Your task to perform on an android device: delete a single message in the gmail app Image 0: 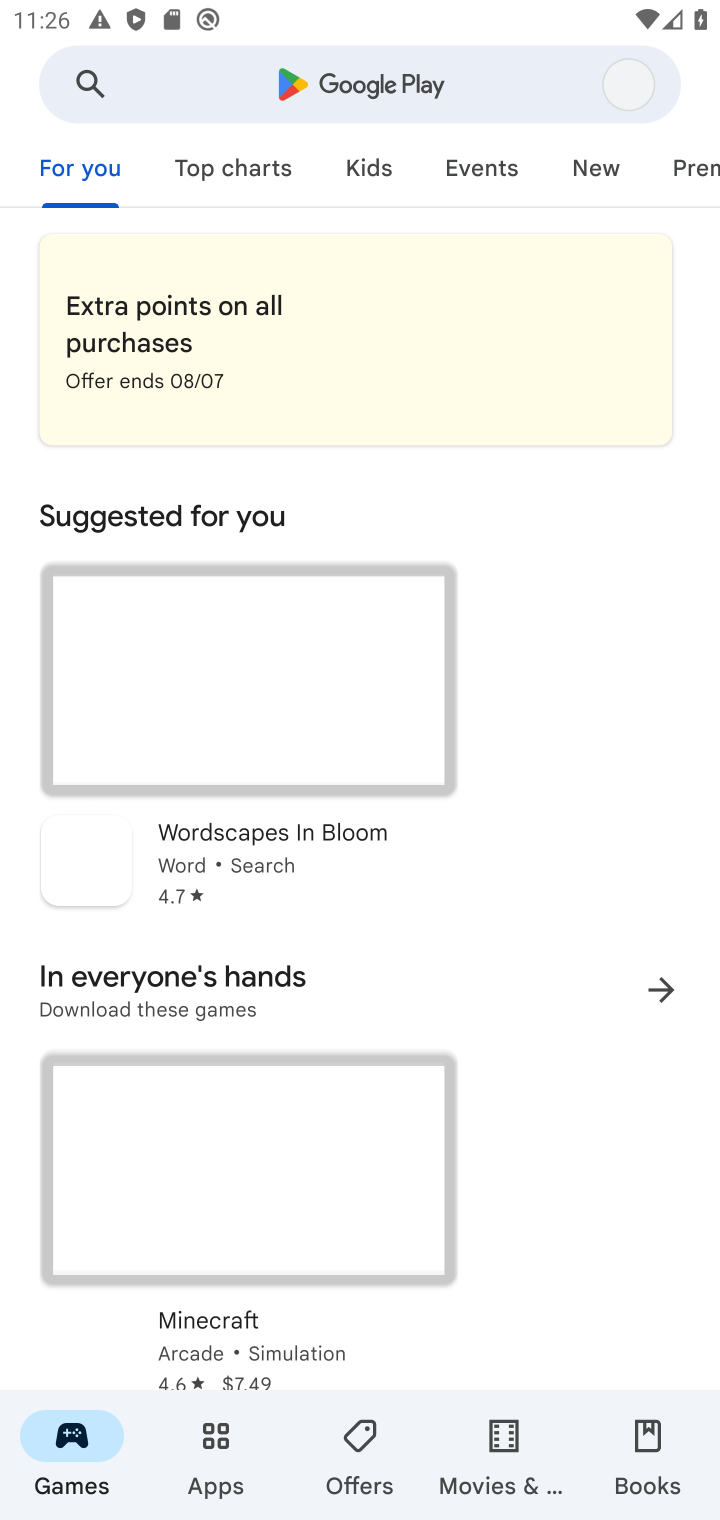
Step 0: press home button
Your task to perform on an android device: delete a single message in the gmail app Image 1: 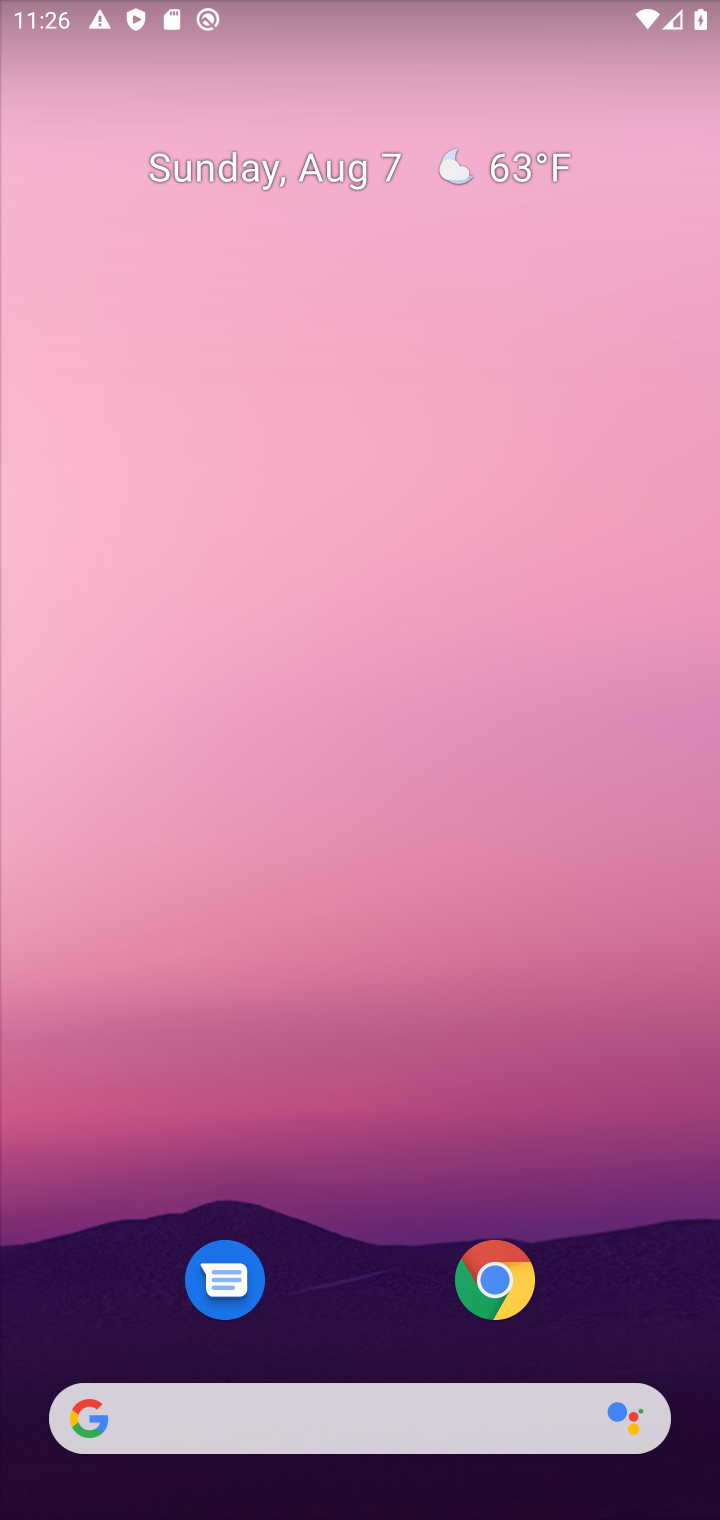
Step 1: drag from (326, 1331) to (301, 320)
Your task to perform on an android device: delete a single message in the gmail app Image 2: 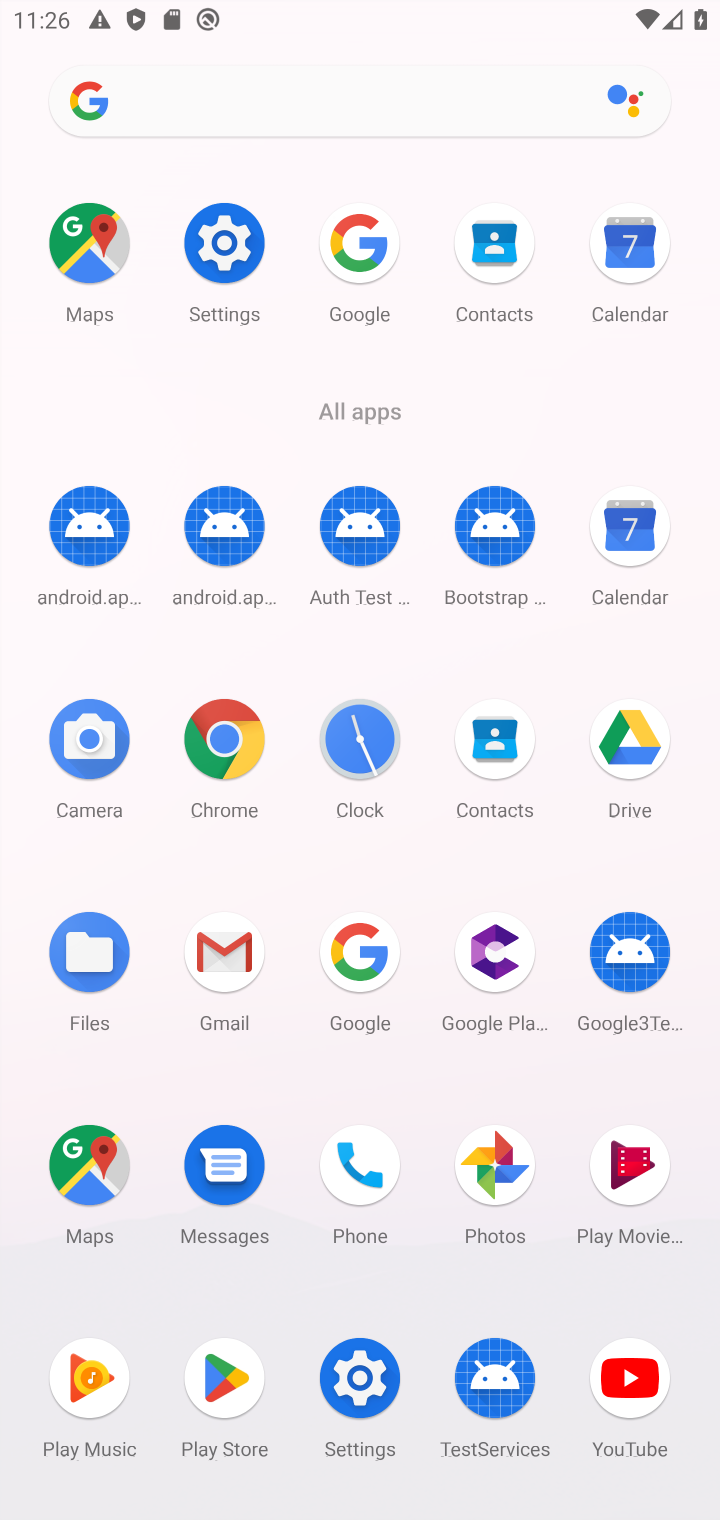
Step 2: click (229, 963)
Your task to perform on an android device: delete a single message in the gmail app Image 3: 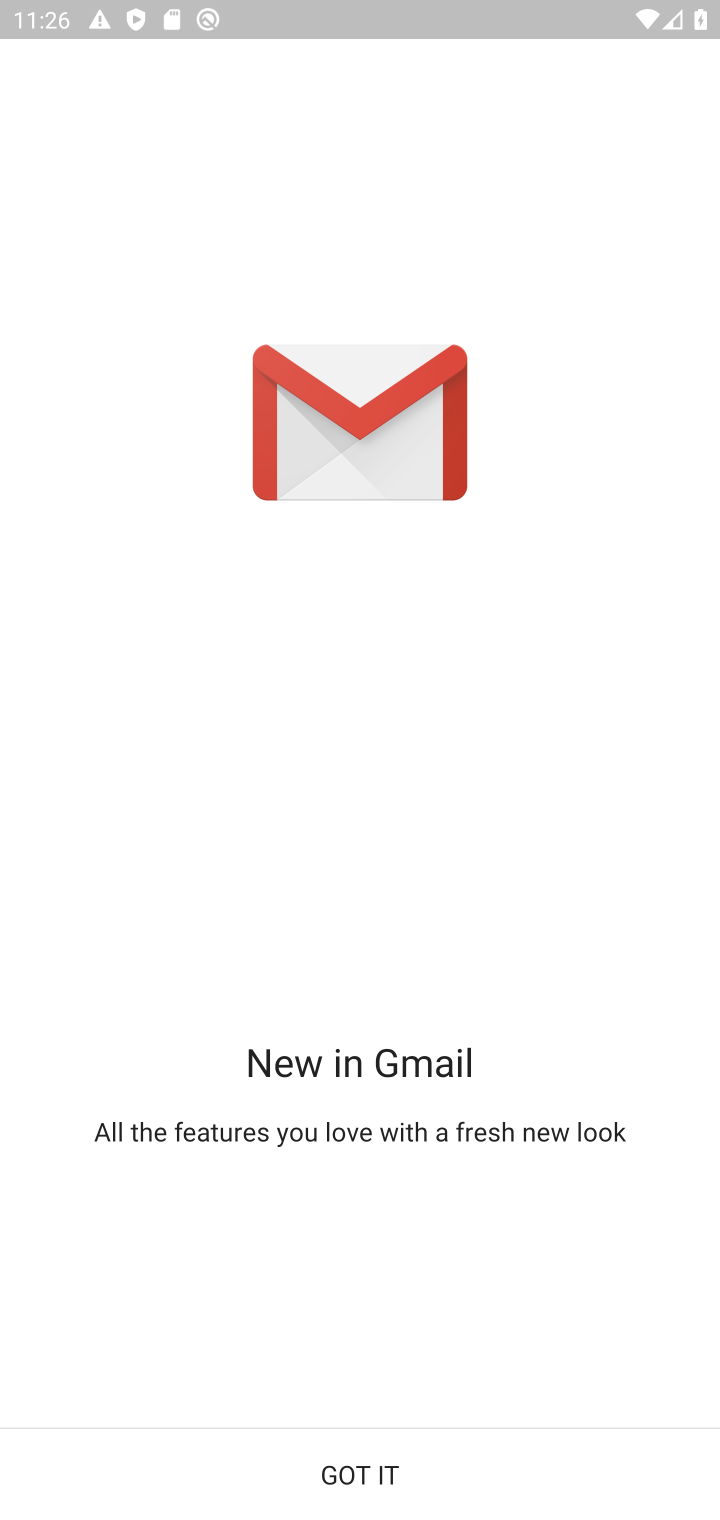
Step 3: click (340, 1468)
Your task to perform on an android device: delete a single message in the gmail app Image 4: 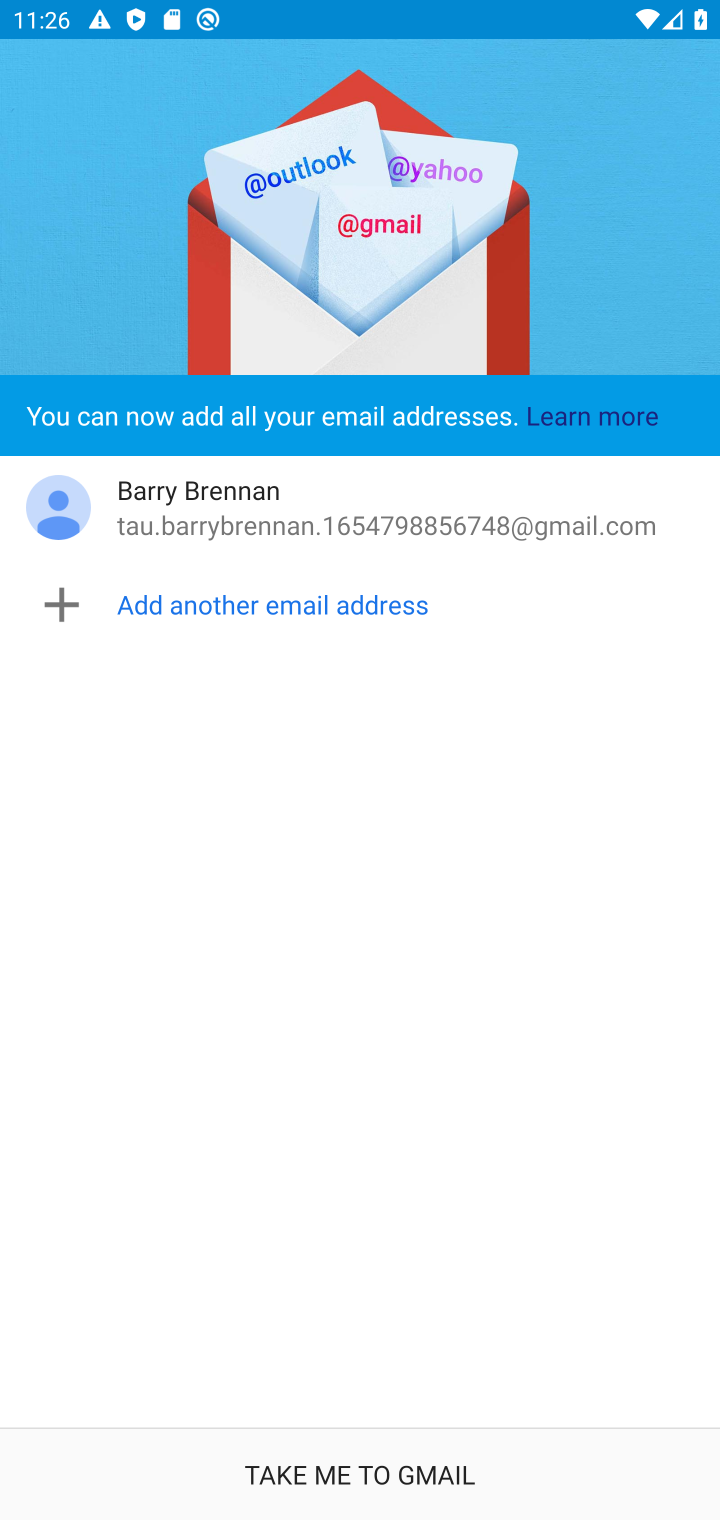
Step 4: click (340, 1468)
Your task to perform on an android device: delete a single message in the gmail app Image 5: 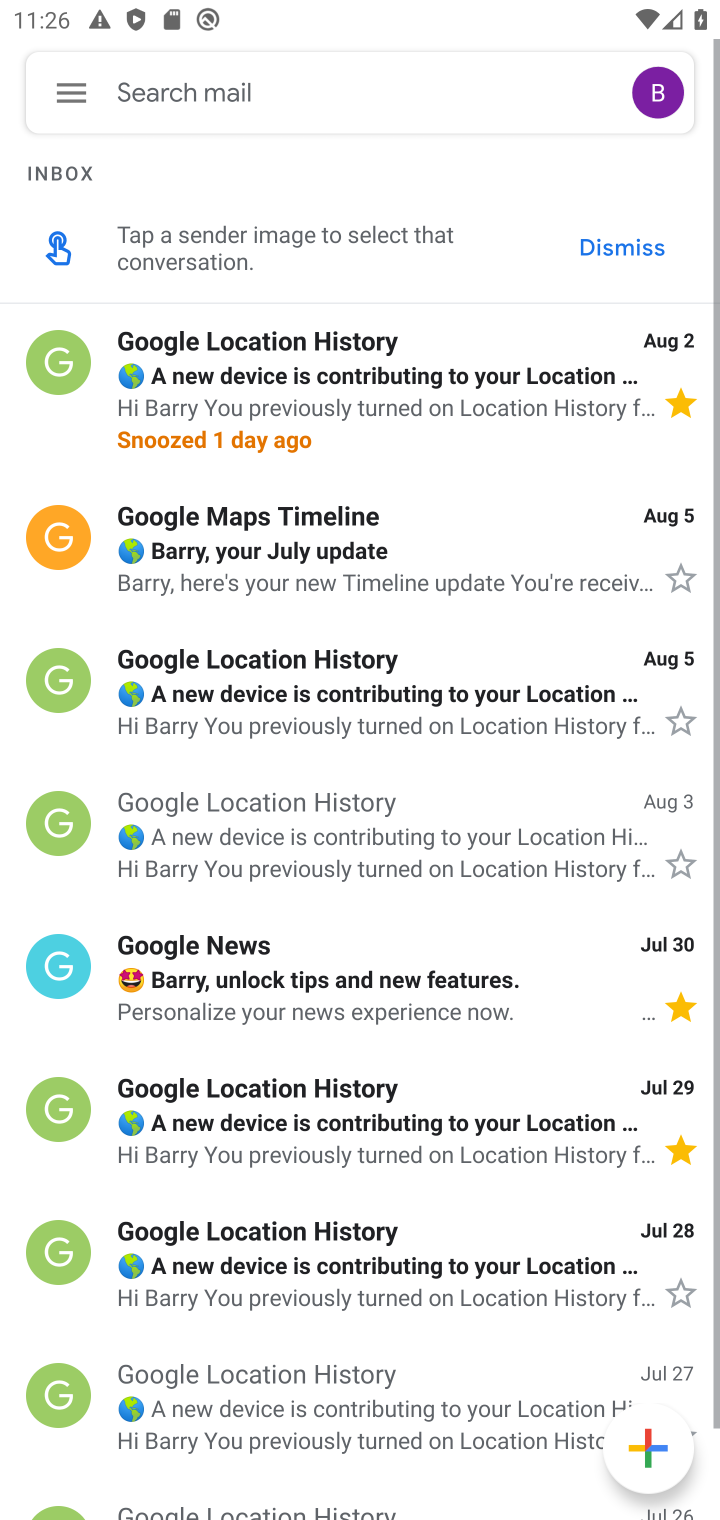
Step 5: click (309, 397)
Your task to perform on an android device: delete a single message in the gmail app Image 6: 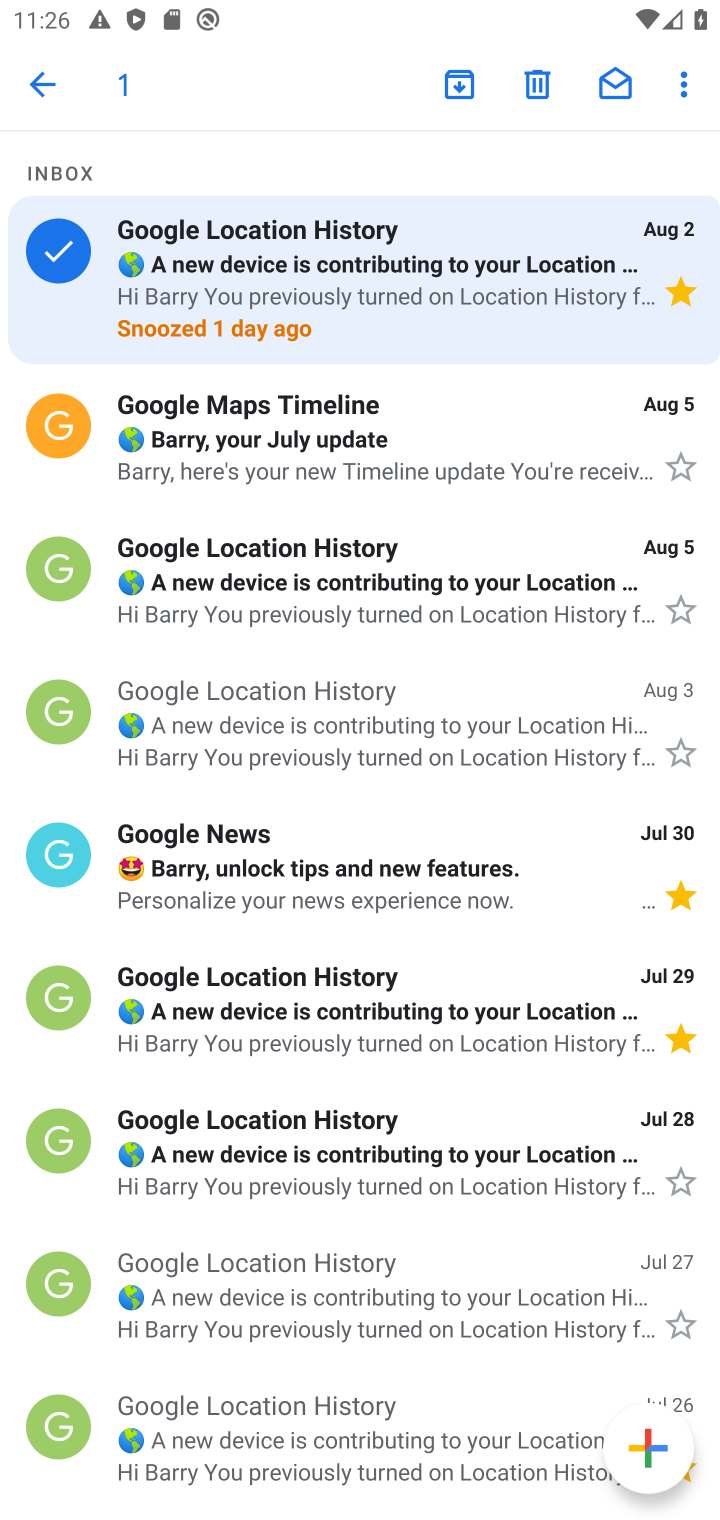
Step 6: click (537, 82)
Your task to perform on an android device: delete a single message in the gmail app Image 7: 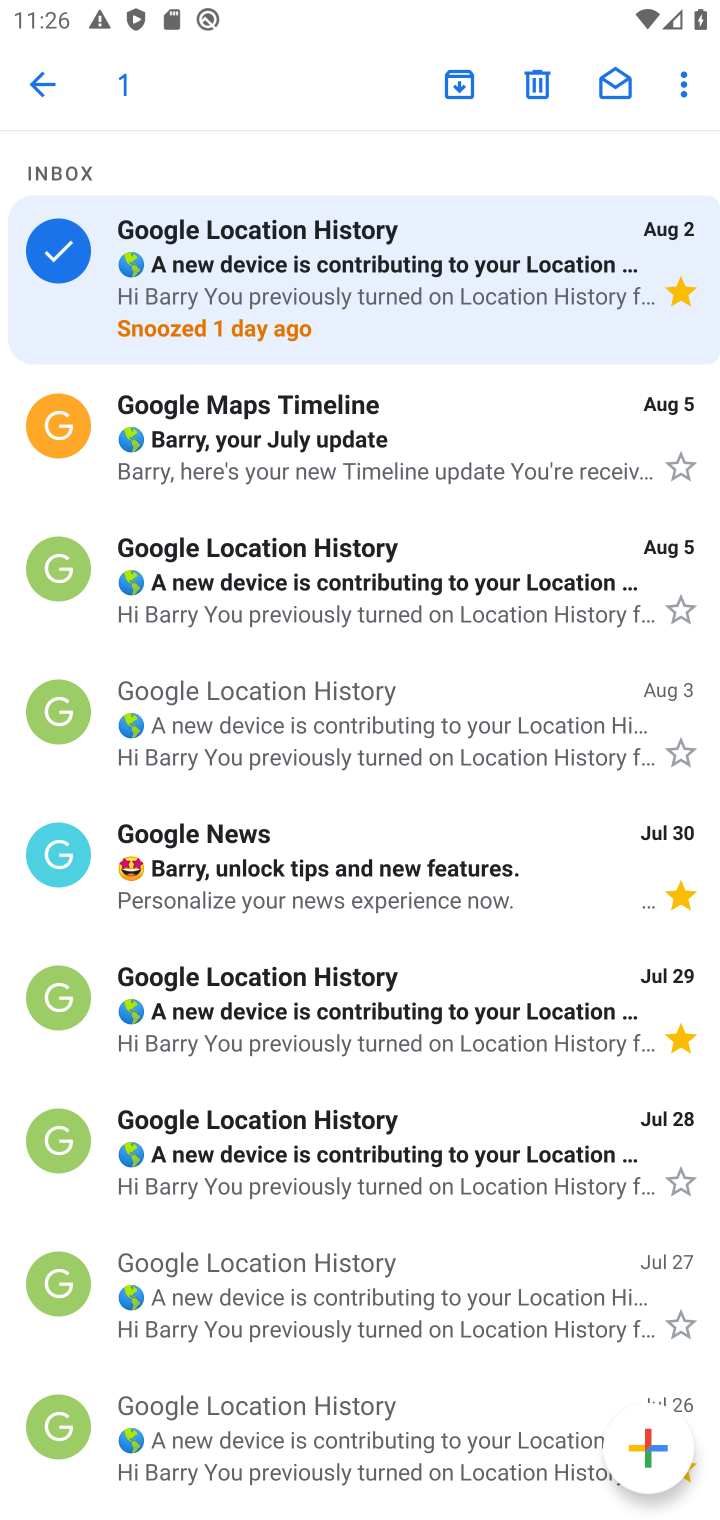
Step 7: click (528, 83)
Your task to perform on an android device: delete a single message in the gmail app Image 8: 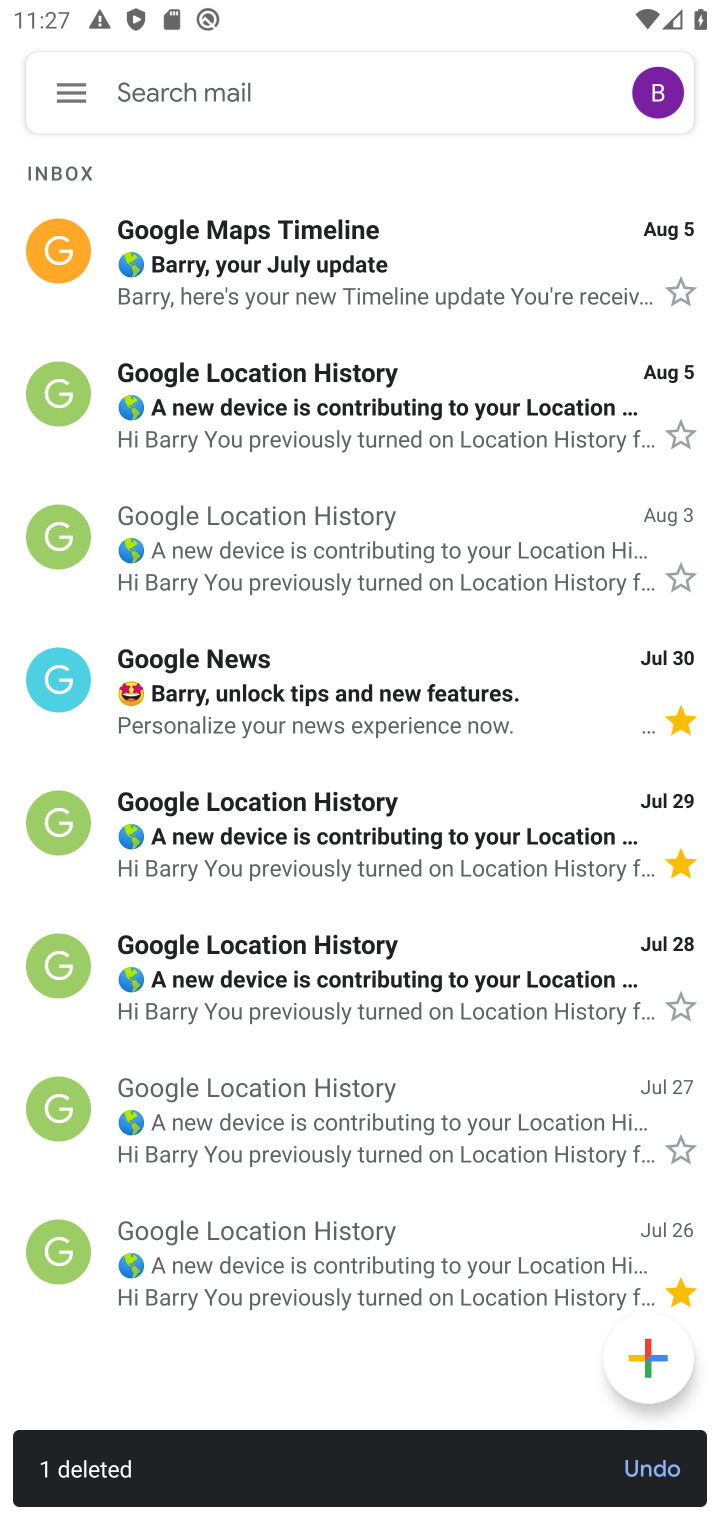
Step 8: task complete